Your task to perform on an android device: visit the assistant section in the google photos Image 0: 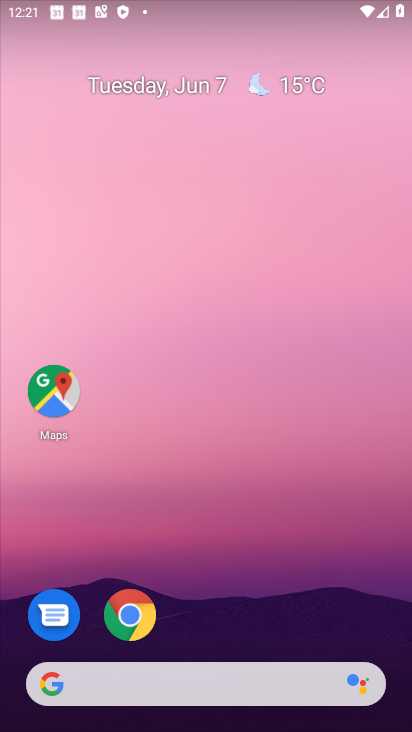
Step 0: drag from (200, 610) to (203, 268)
Your task to perform on an android device: visit the assistant section in the google photos Image 1: 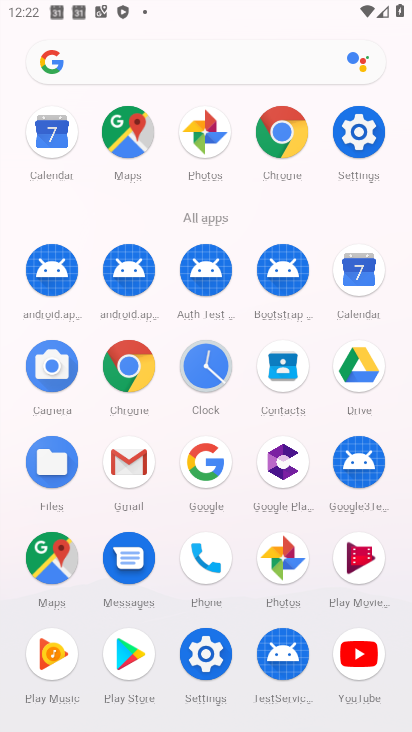
Step 1: click (281, 573)
Your task to perform on an android device: visit the assistant section in the google photos Image 2: 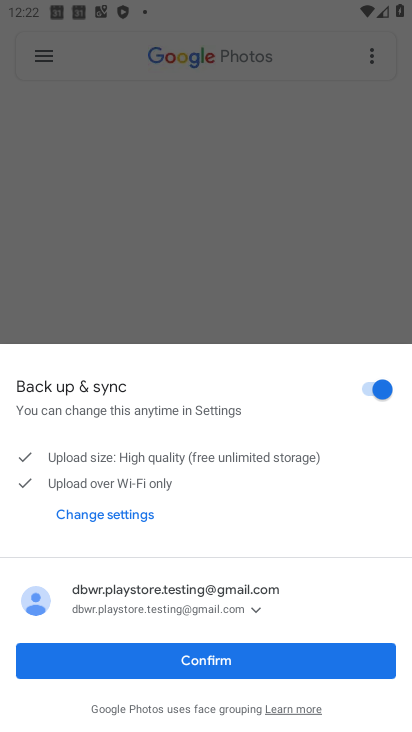
Step 2: click (234, 662)
Your task to perform on an android device: visit the assistant section in the google photos Image 3: 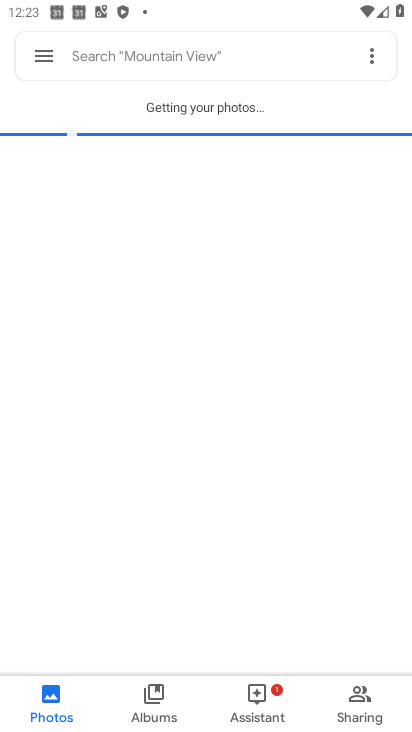
Step 3: click (261, 707)
Your task to perform on an android device: visit the assistant section in the google photos Image 4: 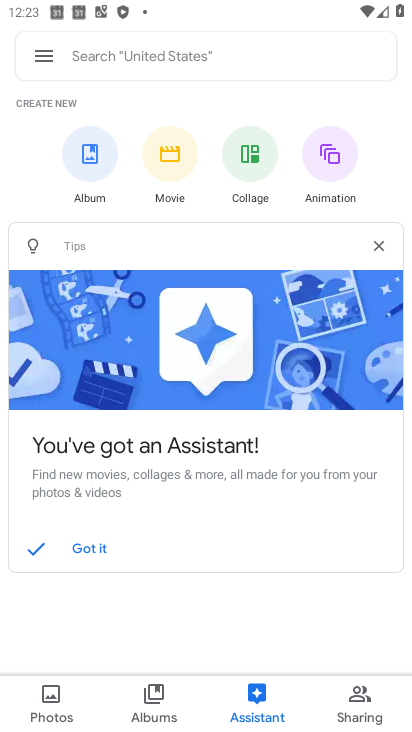
Step 4: task complete